Your task to perform on an android device: turn off improve location accuracy Image 0: 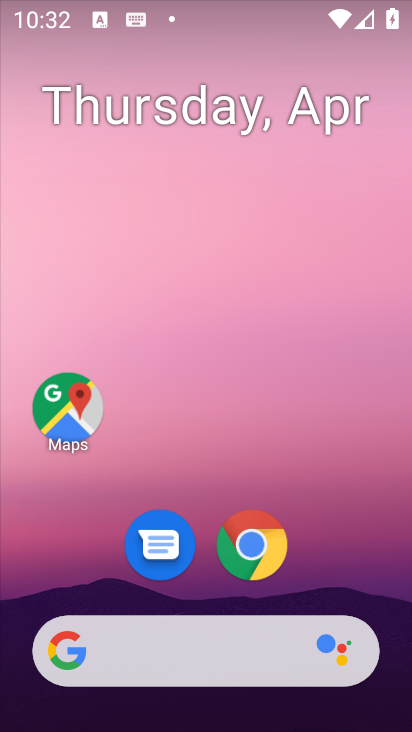
Step 0: drag from (140, 326) to (178, 248)
Your task to perform on an android device: turn off improve location accuracy Image 1: 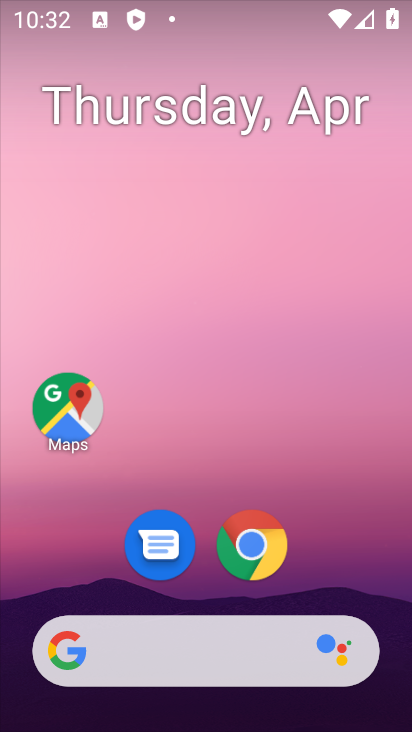
Step 1: drag from (135, 214) to (171, 148)
Your task to perform on an android device: turn off improve location accuracy Image 2: 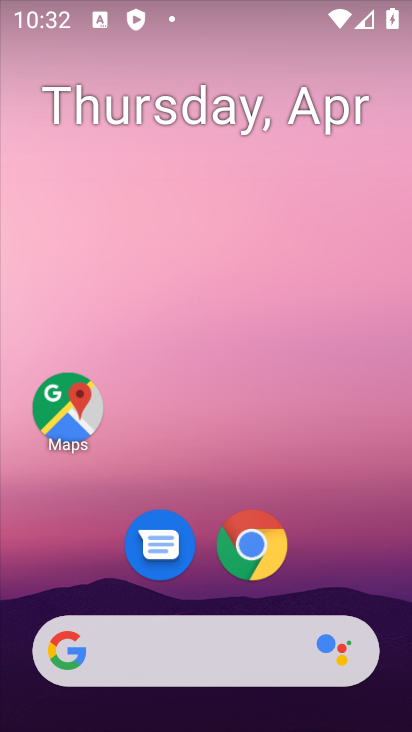
Step 2: drag from (133, 423) to (229, 200)
Your task to perform on an android device: turn off improve location accuracy Image 3: 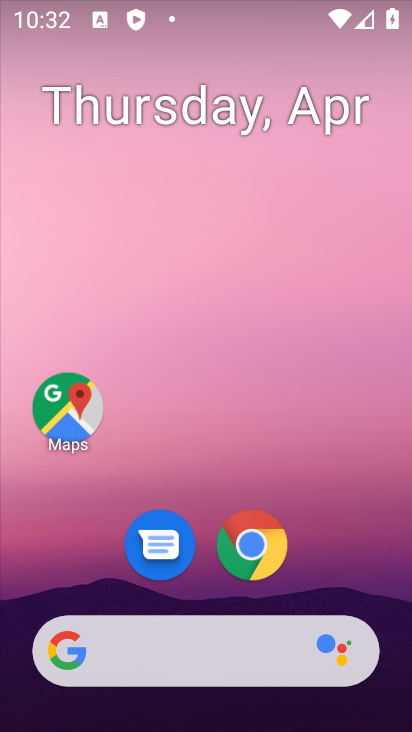
Step 3: drag from (143, 304) to (222, 118)
Your task to perform on an android device: turn off improve location accuracy Image 4: 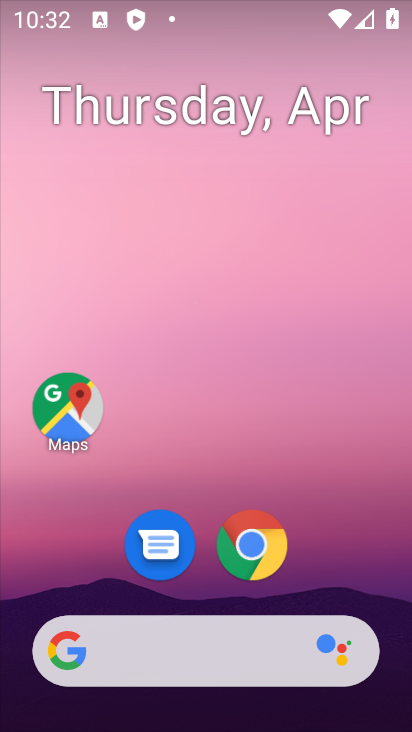
Step 4: drag from (88, 375) to (116, 311)
Your task to perform on an android device: turn off improve location accuracy Image 5: 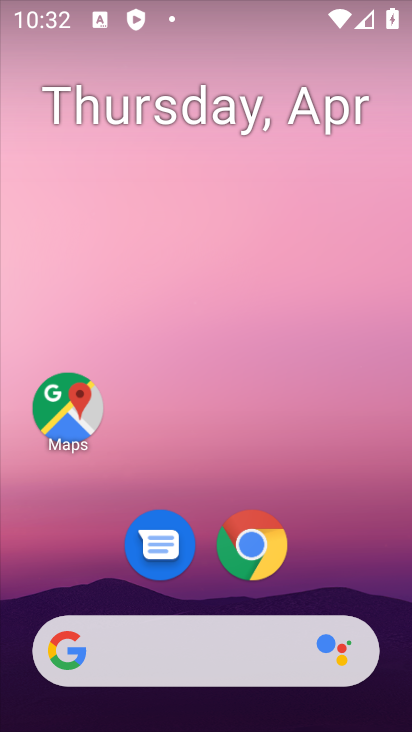
Step 5: drag from (59, 500) to (191, 92)
Your task to perform on an android device: turn off improve location accuracy Image 6: 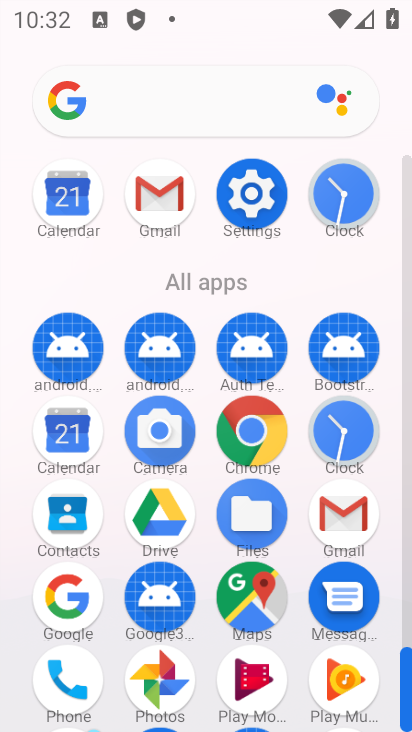
Step 6: click (255, 226)
Your task to perform on an android device: turn off improve location accuracy Image 7: 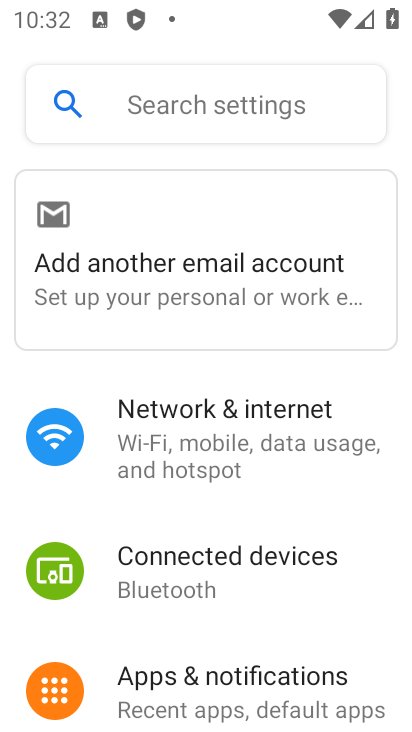
Step 7: drag from (167, 694) to (268, 231)
Your task to perform on an android device: turn off improve location accuracy Image 8: 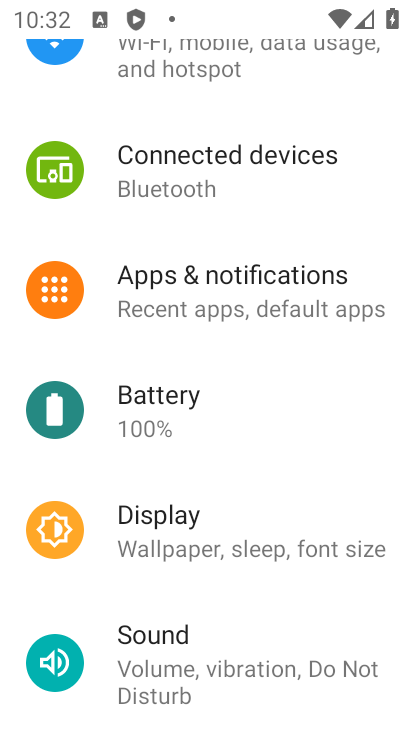
Step 8: drag from (174, 636) to (322, 328)
Your task to perform on an android device: turn off improve location accuracy Image 9: 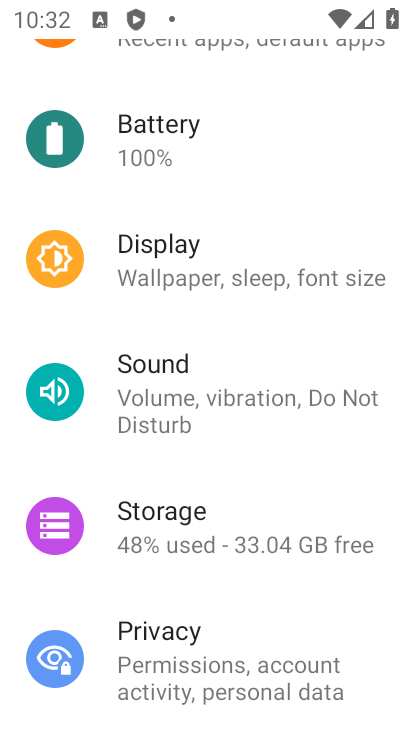
Step 9: drag from (213, 662) to (305, 275)
Your task to perform on an android device: turn off improve location accuracy Image 10: 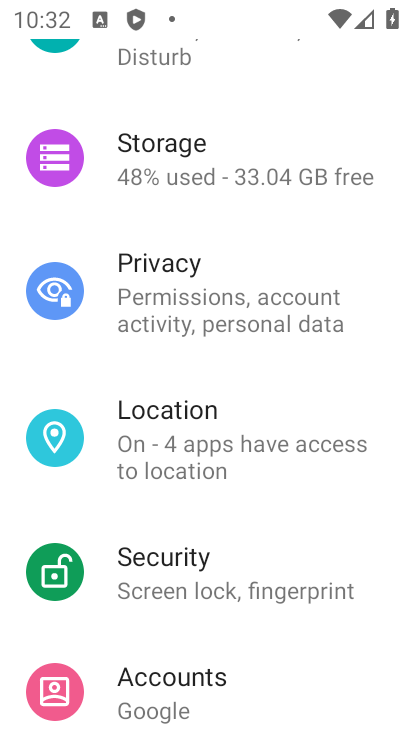
Step 10: click (218, 460)
Your task to perform on an android device: turn off improve location accuracy Image 11: 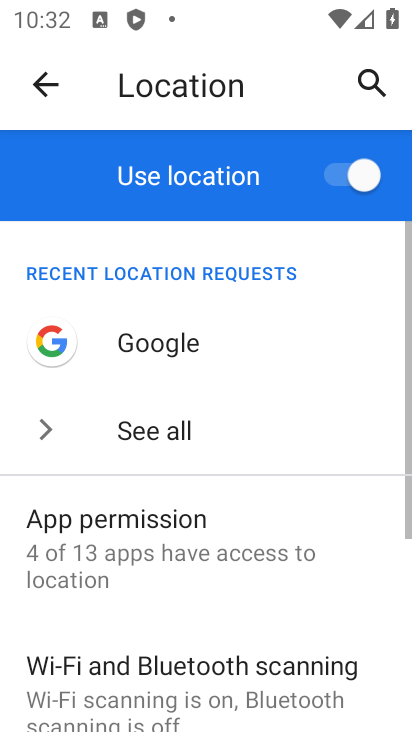
Step 11: drag from (178, 684) to (261, 313)
Your task to perform on an android device: turn off improve location accuracy Image 12: 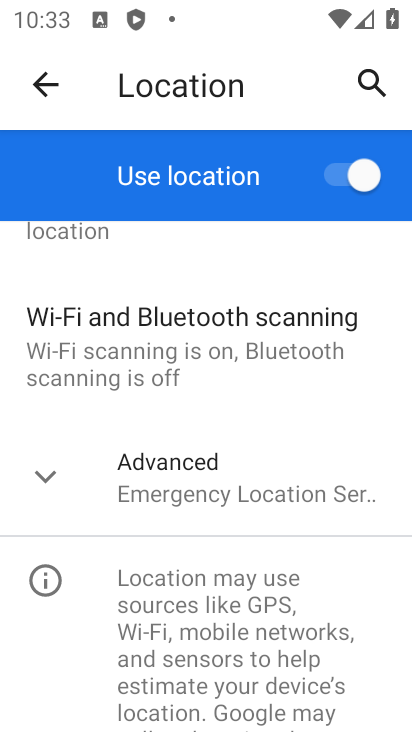
Step 12: click (245, 470)
Your task to perform on an android device: turn off improve location accuracy Image 13: 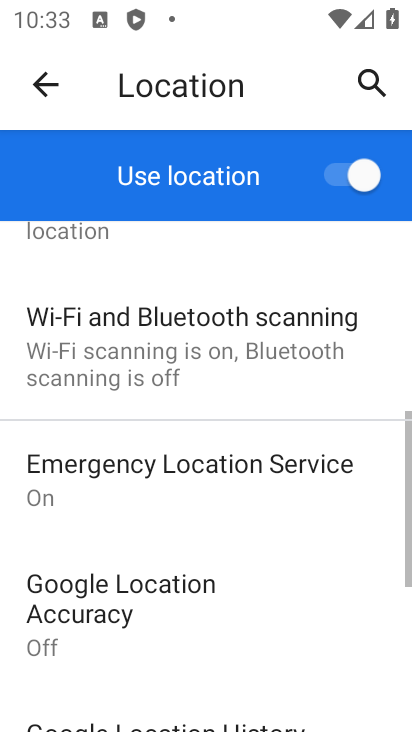
Step 13: drag from (161, 656) to (293, 283)
Your task to perform on an android device: turn off improve location accuracy Image 14: 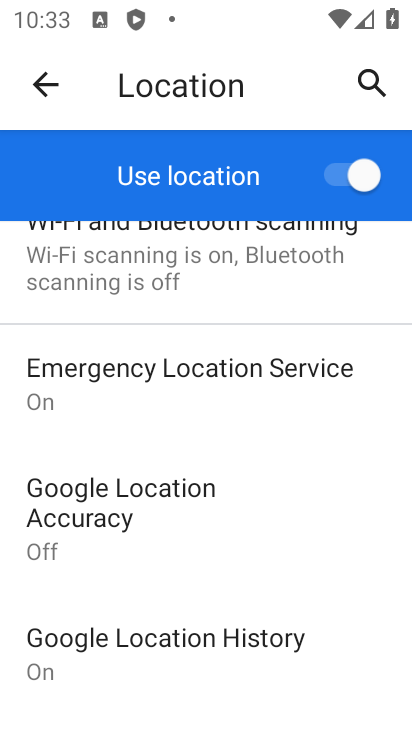
Step 14: click (150, 503)
Your task to perform on an android device: turn off improve location accuracy Image 15: 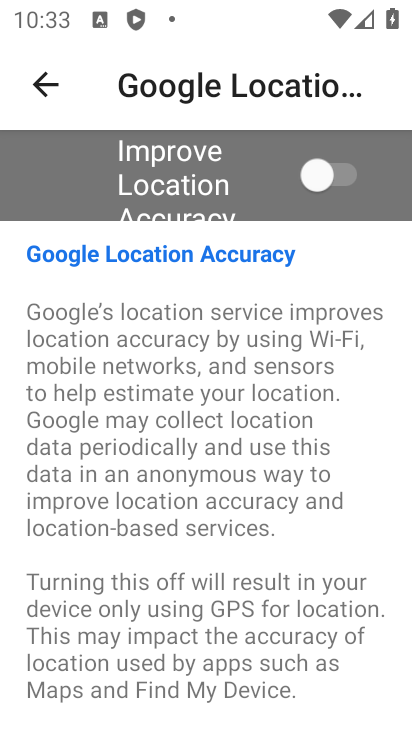
Step 15: task complete